Your task to perform on an android device: Go to display settings Image 0: 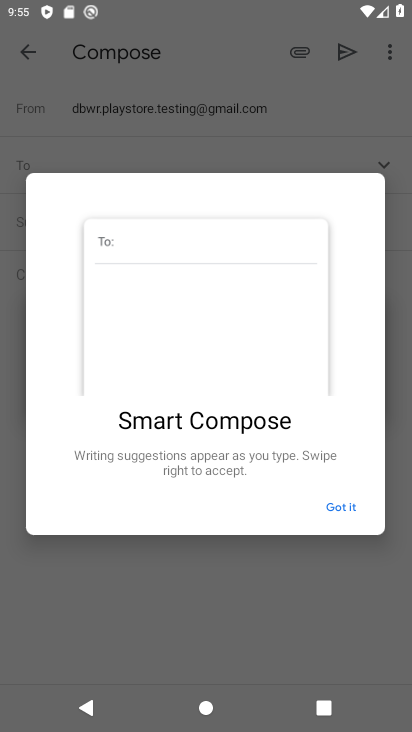
Step 0: press home button
Your task to perform on an android device: Go to display settings Image 1: 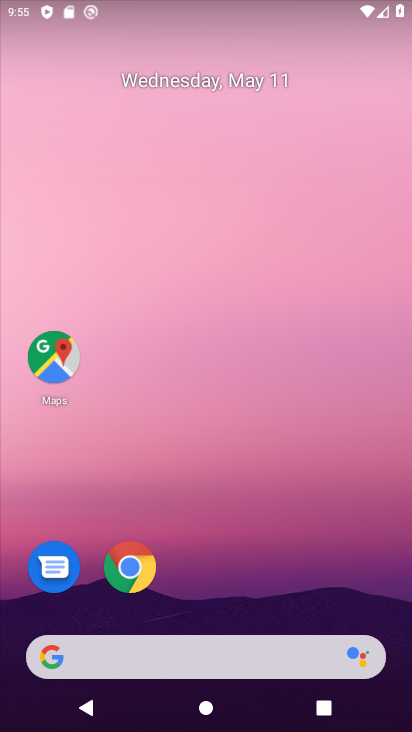
Step 1: drag from (278, 576) to (304, 152)
Your task to perform on an android device: Go to display settings Image 2: 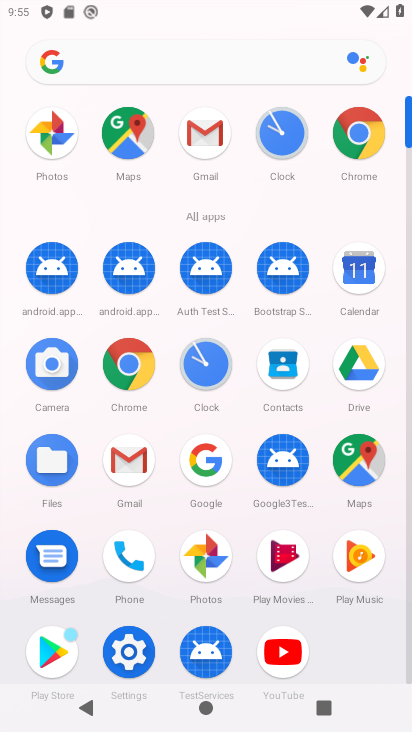
Step 2: click (117, 647)
Your task to perform on an android device: Go to display settings Image 3: 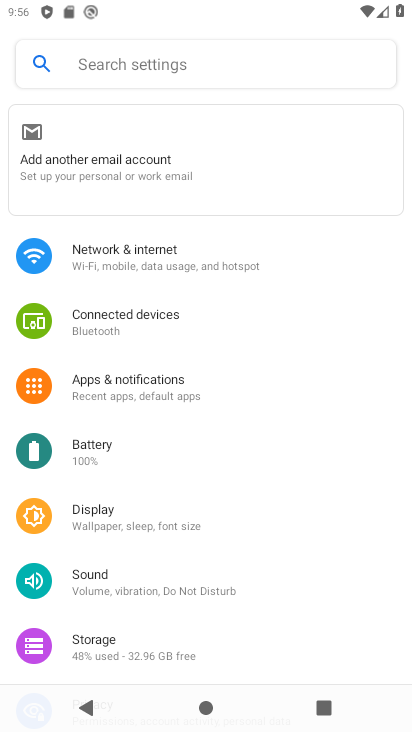
Step 3: click (123, 525)
Your task to perform on an android device: Go to display settings Image 4: 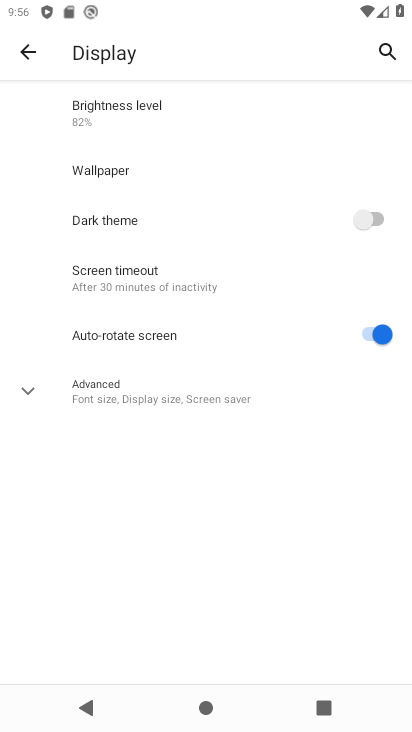
Step 4: task complete